Your task to perform on an android device: stop showing notifications on the lock screen Image 0: 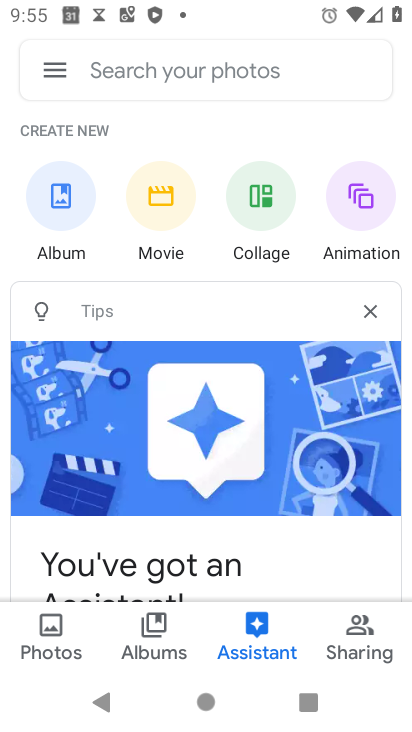
Step 0: press home button
Your task to perform on an android device: stop showing notifications on the lock screen Image 1: 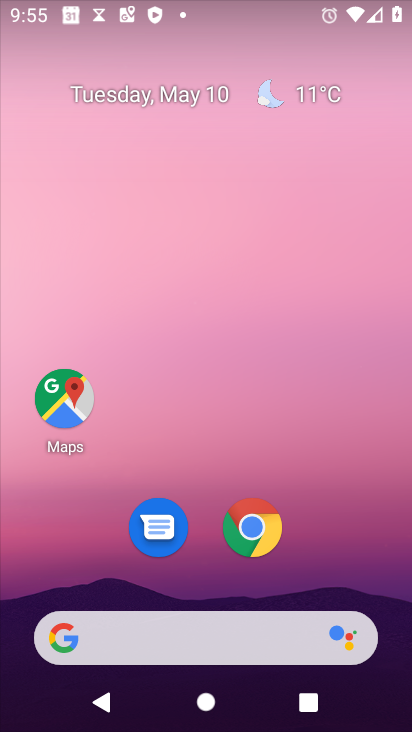
Step 1: drag from (375, 555) to (309, 153)
Your task to perform on an android device: stop showing notifications on the lock screen Image 2: 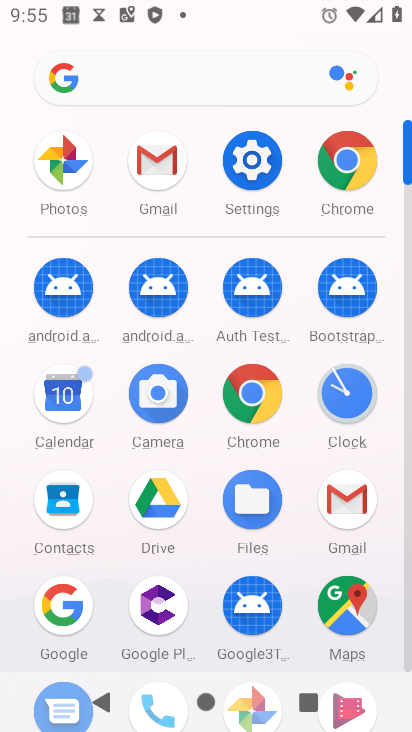
Step 2: click (261, 183)
Your task to perform on an android device: stop showing notifications on the lock screen Image 3: 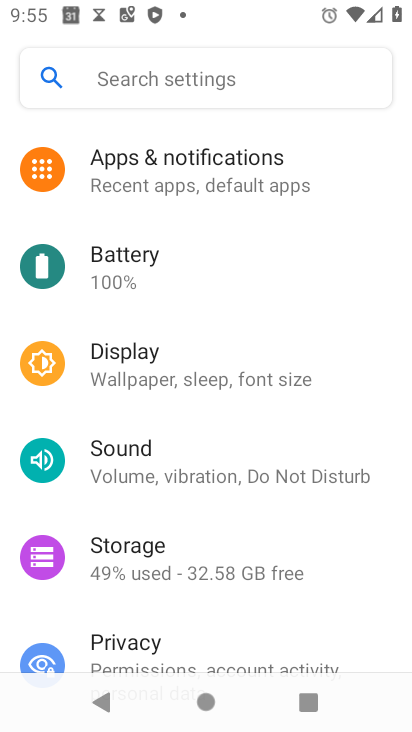
Step 3: click (297, 553)
Your task to perform on an android device: stop showing notifications on the lock screen Image 4: 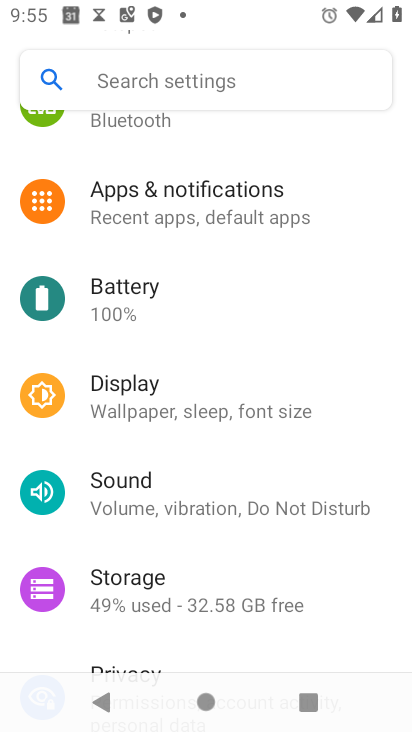
Step 4: click (184, 198)
Your task to perform on an android device: stop showing notifications on the lock screen Image 5: 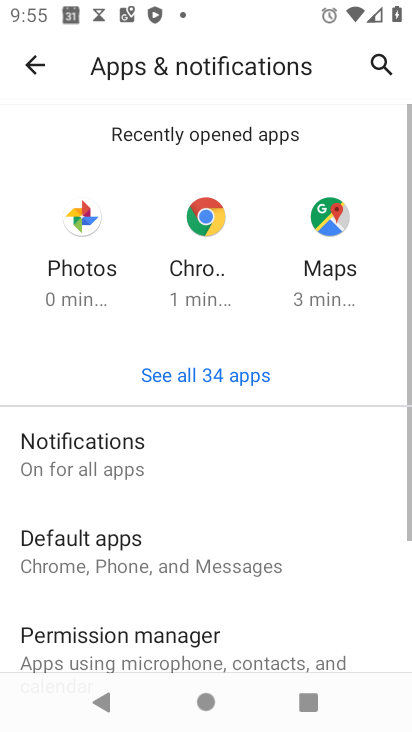
Step 5: drag from (270, 609) to (233, 388)
Your task to perform on an android device: stop showing notifications on the lock screen Image 6: 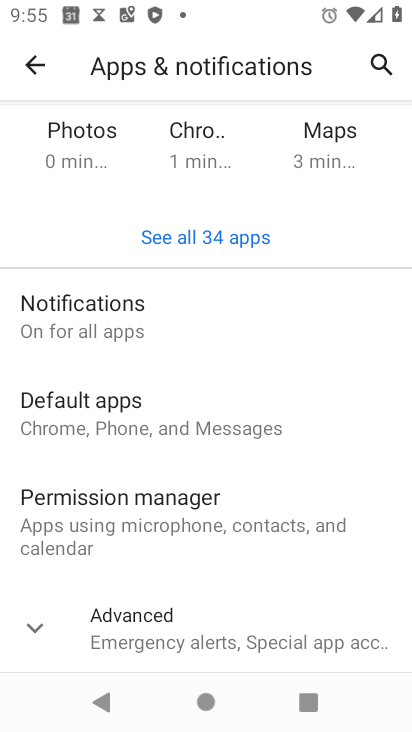
Step 6: click (156, 322)
Your task to perform on an android device: stop showing notifications on the lock screen Image 7: 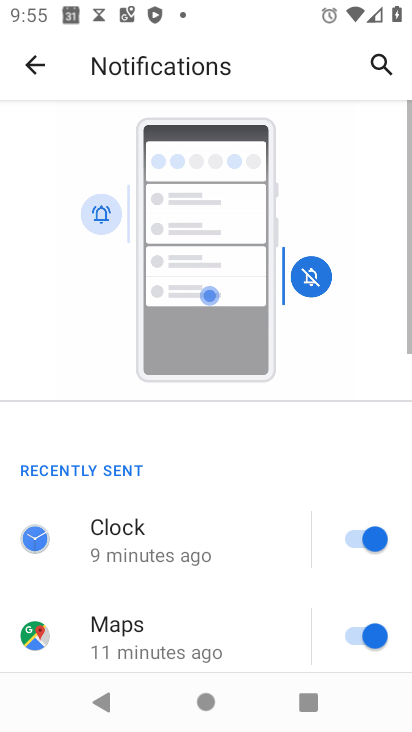
Step 7: drag from (234, 599) to (191, 206)
Your task to perform on an android device: stop showing notifications on the lock screen Image 8: 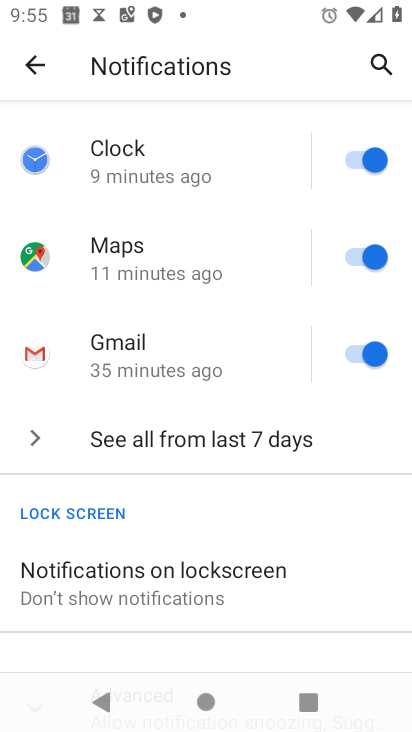
Step 8: click (207, 575)
Your task to perform on an android device: stop showing notifications on the lock screen Image 9: 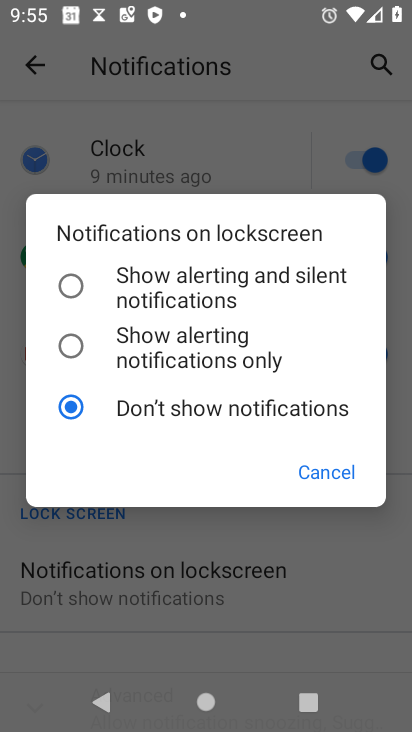
Step 9: task complete